Your task to perform on an android device: empty trash in google photos Image 0: 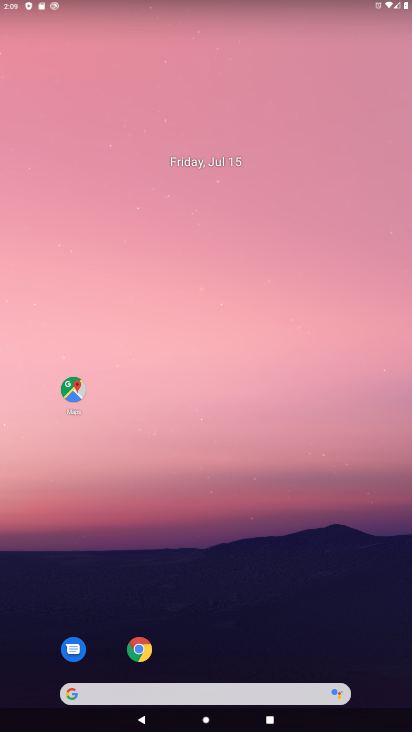
Step 0: drag from (225, 609) to (242, 57)
Your task to perform on an android device: empty trash in google photos Image 1: 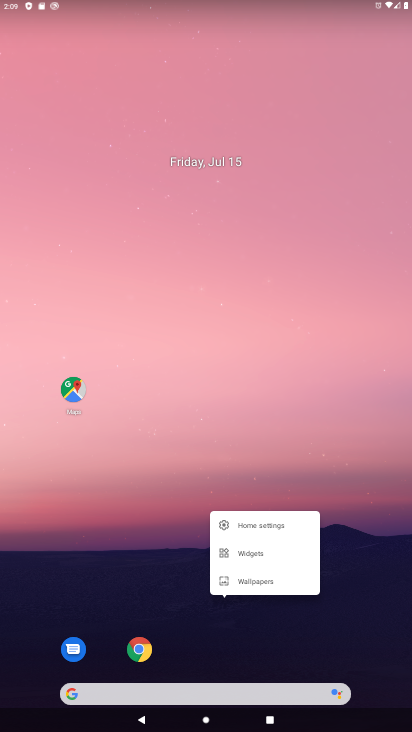
Step 1: drag from (175, 674) to (140, 358)
Your task to perform on an android device: empty trash in google photos Image 2: 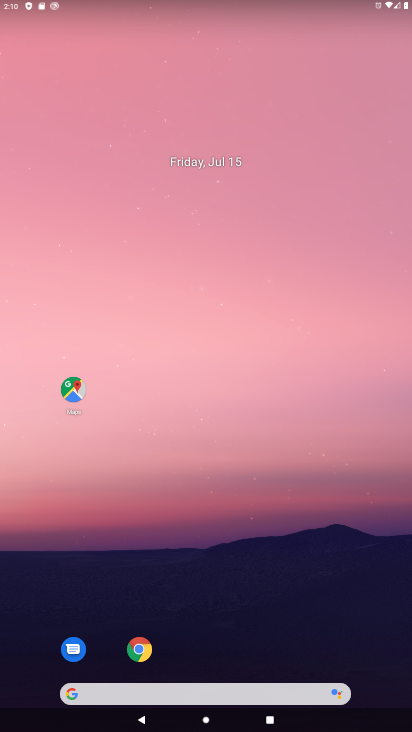
Step 2: drag from (202, 650) to (162, 222)
Your task to perform on an android device: empty trash in google photos Image 3: 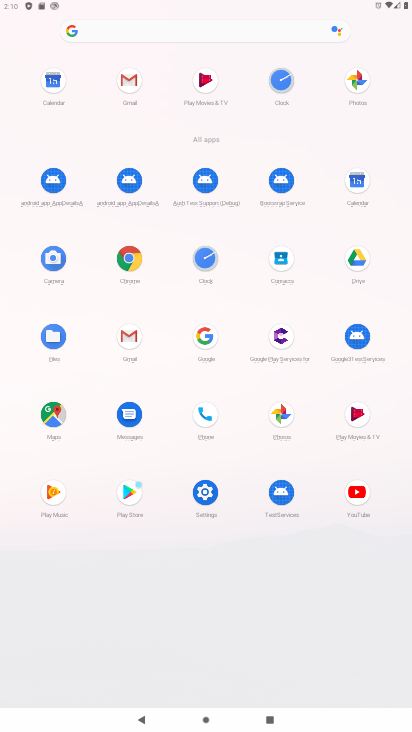
Step 3: click (362, 89)
Your task to perform on an android device: empty trash in google photos Image 4: 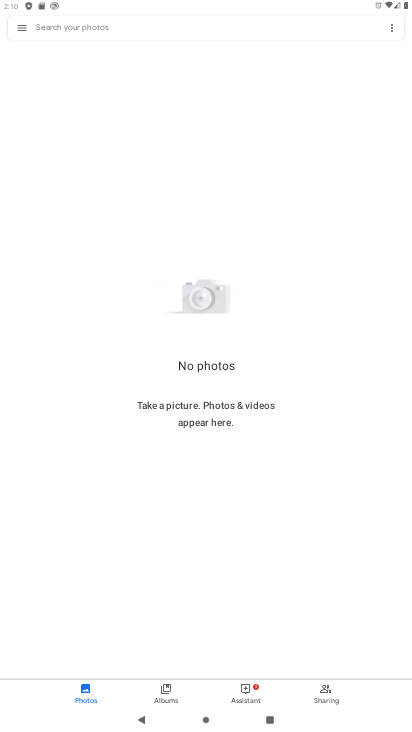
Step 4: click (23, 35)
Your task to perform on an android device: empty trash in google photos Image 5: 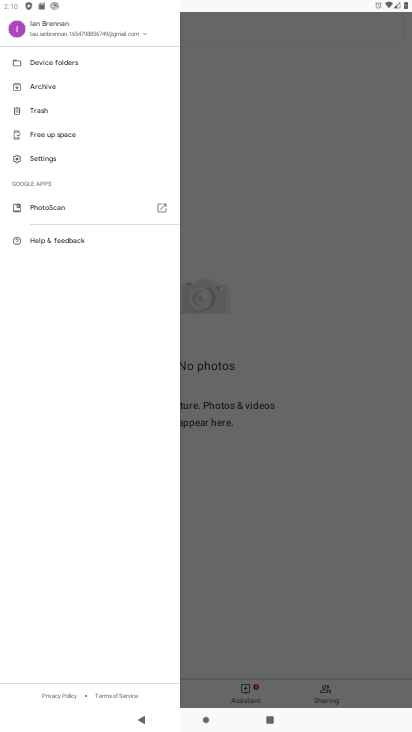
Step 5: click (62, 113)
Your task to perform on an android device: empty trash in google photos Image 6: 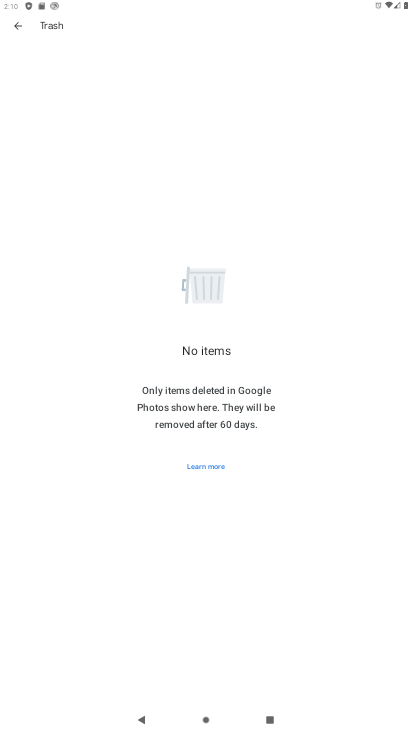
Step 6: task complete